Your task to perform on an android device: add a contact in the contacts app Image 0: 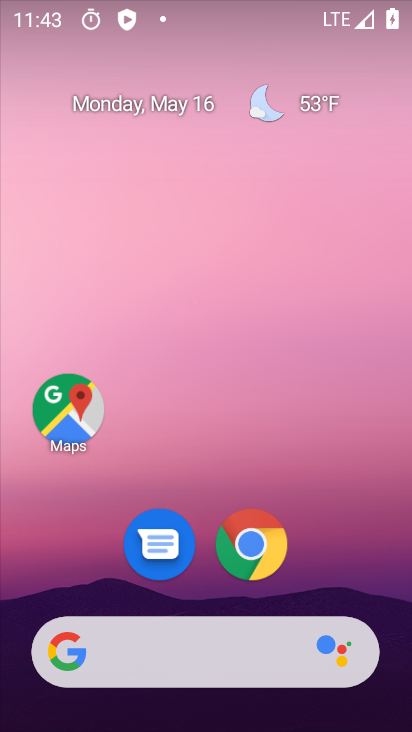
Step 0: drag from (299, 498) to (286, 135)
Your task to perform on an android device: add a contact in the contacts app Image 1: 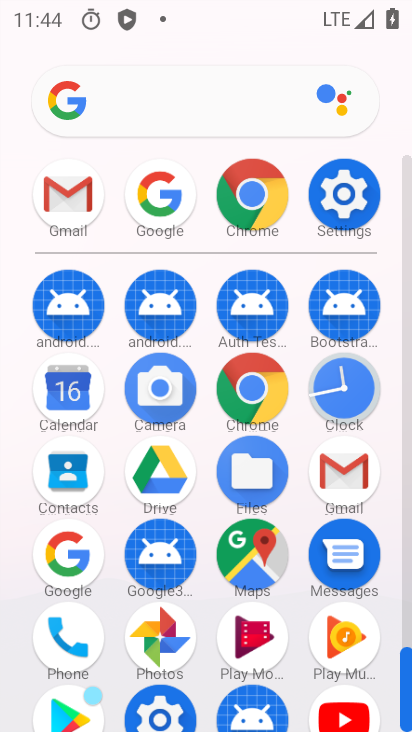
Step 1: click (55, 478)
Your task to perform on an android device: add a contact in the contacts app Image 2: 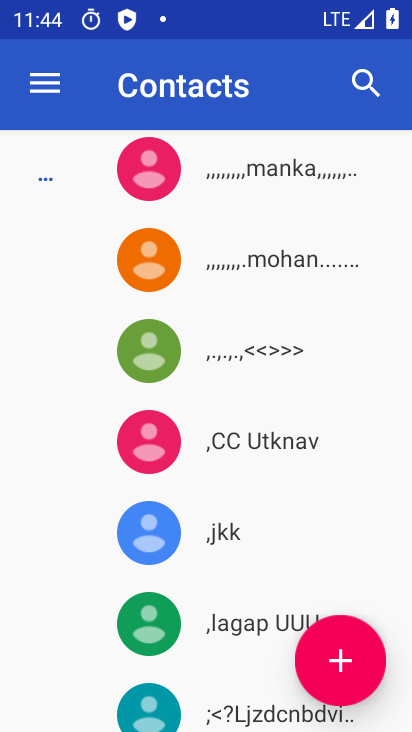
Step 2: click (327, 650)
Your task to perform on an android device: add a contact in the contacts app Image 3: 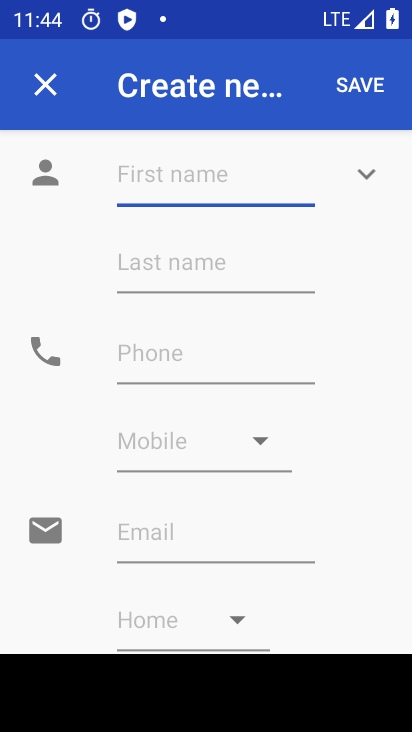
Step 3: click (181, 180)
Your task to perform on an android device: add a contact in the contacts app Image 4: 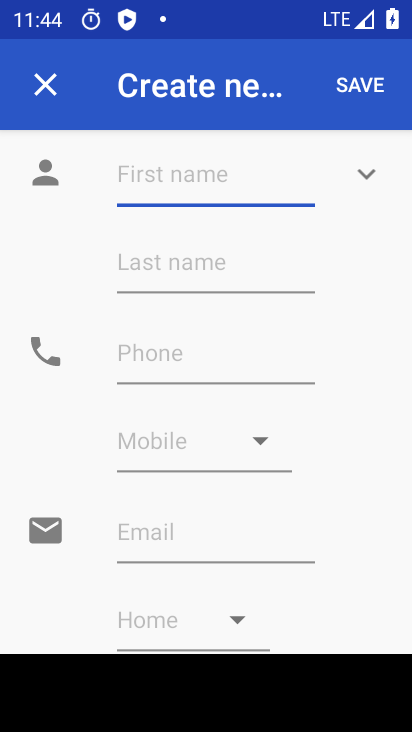
Step 4: type "namisha"
Your task to perform on an android device: add a contact in the contacts app Image 5: 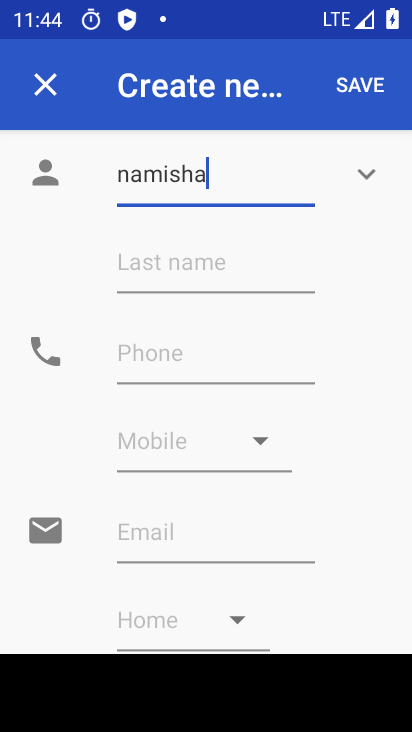
Step 5: click (255, 369)
Your task to perform on an android device: add a contact in the contacts app Image 6: 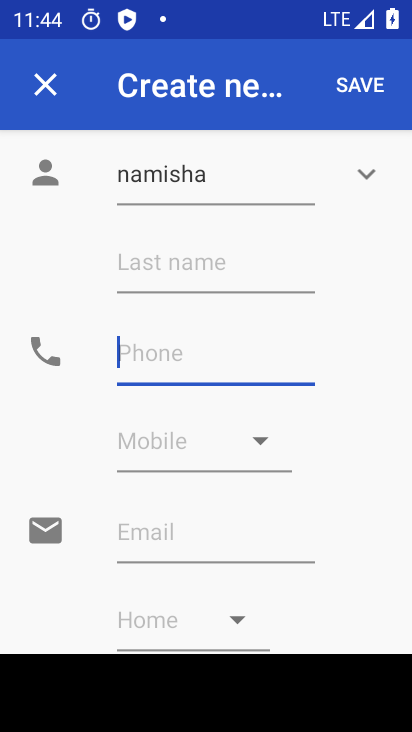
Step 6: type "8329832893289"
Your task to perform on an android device: add a contact in the contacts app Image 7: 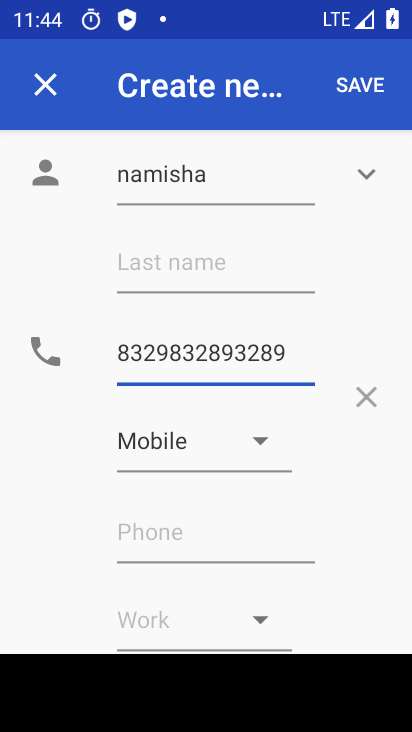
Step 7: click (363, 97)
Your task to perform on an android device: add a contact in the contacts app Image 8: 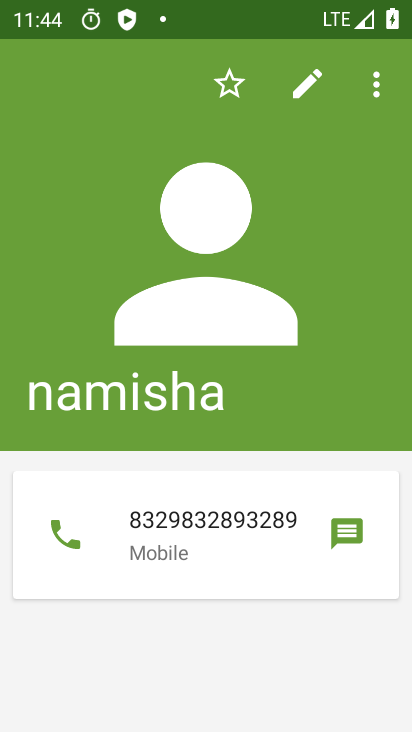
Step 8: task complete